Your task to perform on an android device: move an email to a new category in the gmail app Image 0: 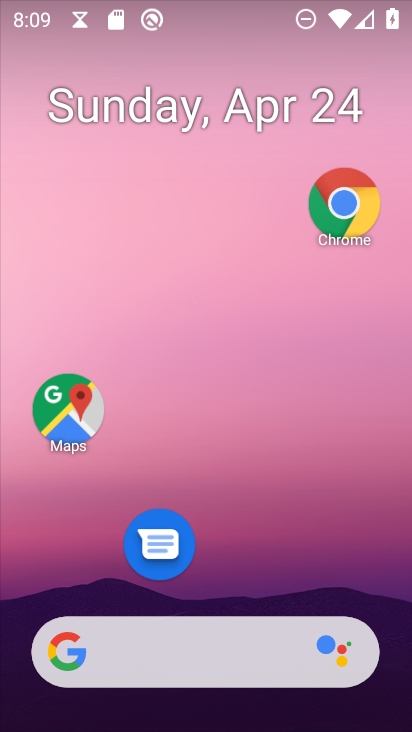
Step 0: press home button
Your task to perform on an android device: move an email to a new category in the gmail app Image 1: 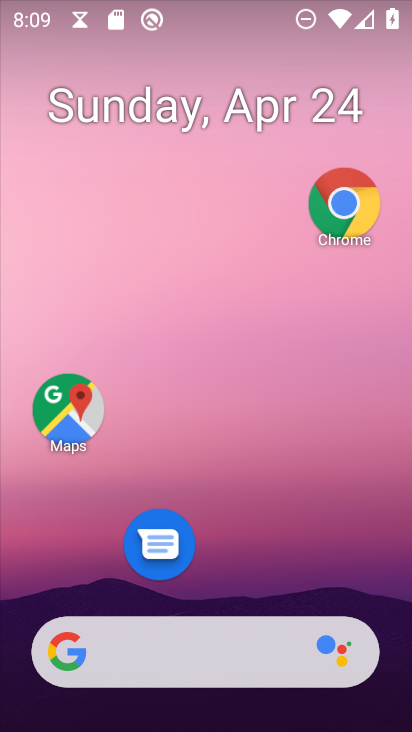
Step 1: drag from (167, 598) to (297, 199)
Your task to perform on an android device: move an email to a new category in the gmail app Image 2: 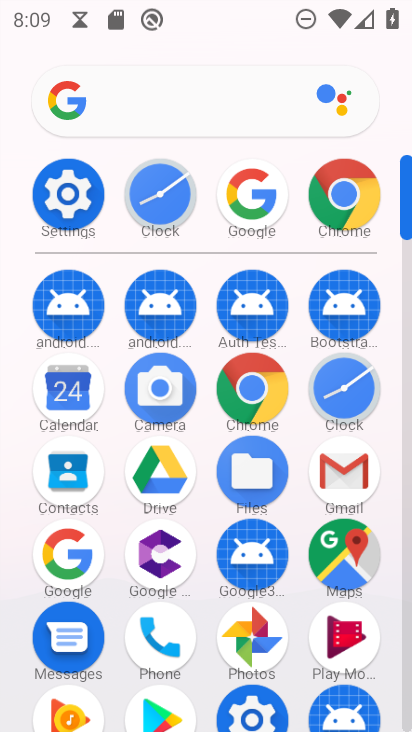
Step 2: click (342, 469)
Your task to perform on an android device: move an email to a new category in the gmail app Image 3: 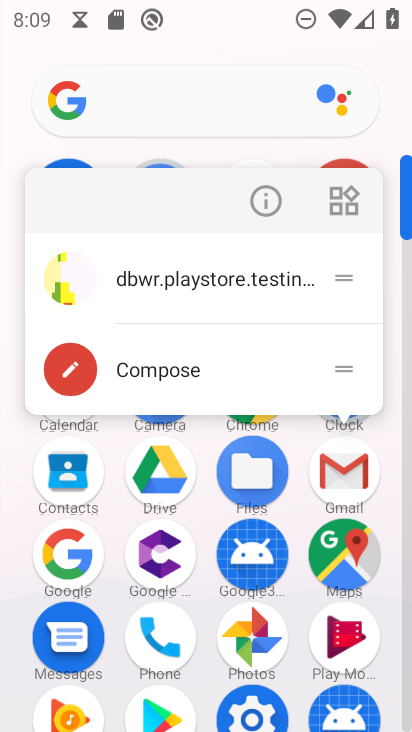
Step 3: click (342, 468)
Your task to perform on an android device: move an email to a new category in the gmail app Image 4: 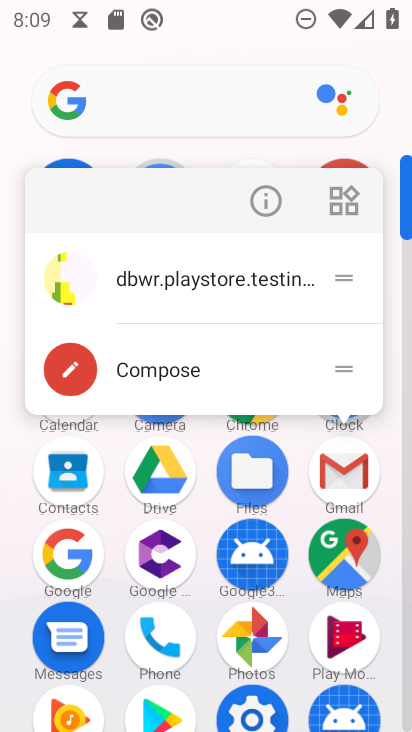
Step 4: click (340, 490)
Your task to perform on an android device: move an email to a new category in the gmail app Image 5: 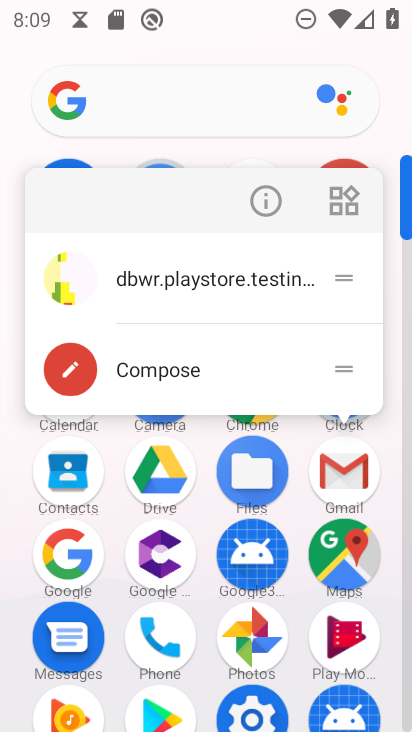
Step 5: click (340, 485)
Your task to perform on an android device: move an email to a new category in the gmail app Image 6: 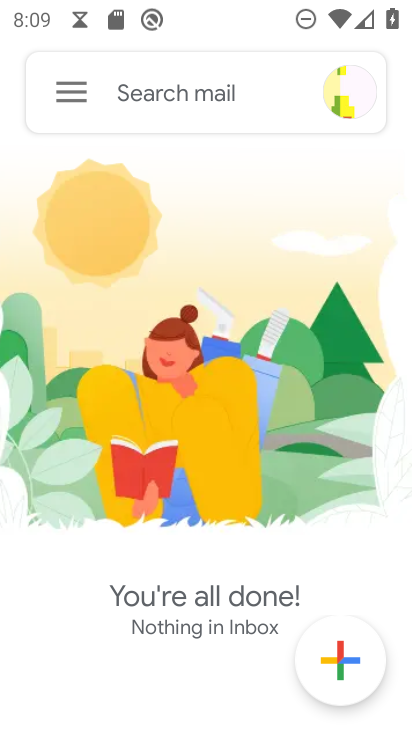
Step 6: click (59, 105)
Your task to perform on an android device: move an email to a new category in the gmail app Image 7: 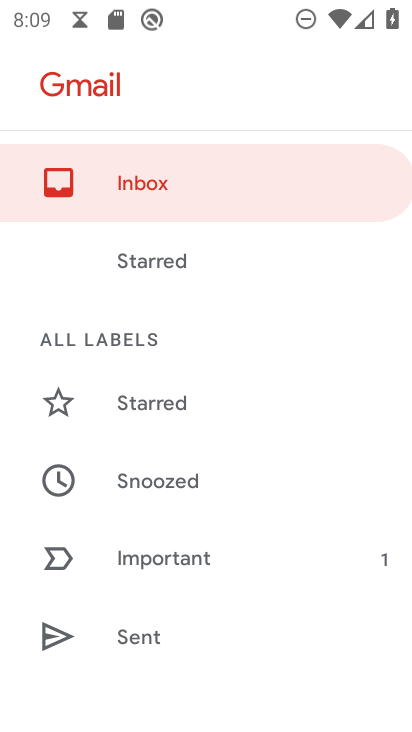
Step 7: drag from (201, 618) to (296, 208)
Your task to perform on an android device: move an email to a new category in the gmail app Image 8: 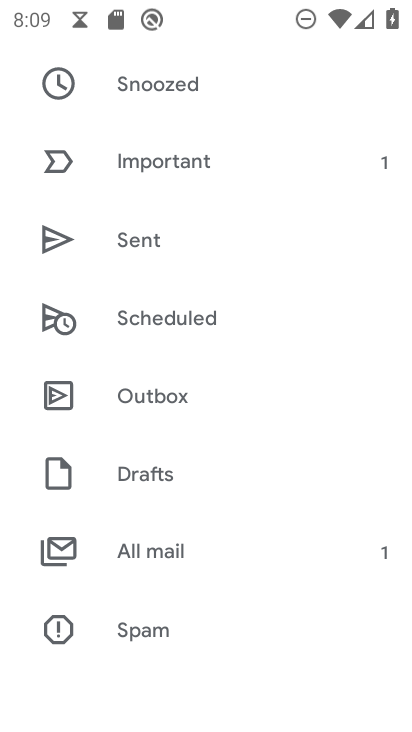
Step 8: click (168, 561)
Your task to perform on an android device: move an email to a new category in the gmail app Image 9: 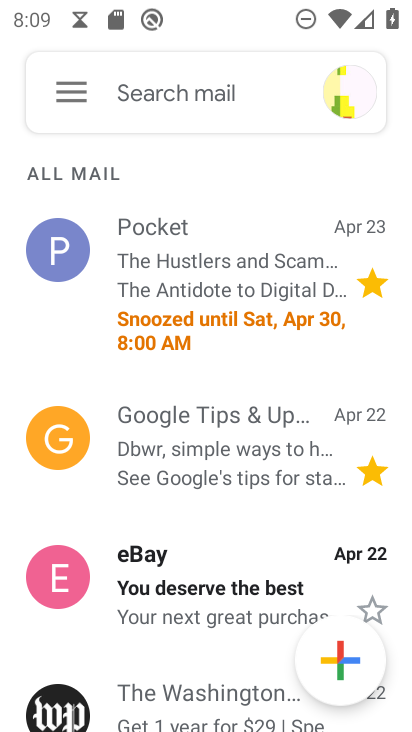
Step 9: click (68, 258)
Your task to perform on an android device: move an email to a new category in the gmail app Image 10: 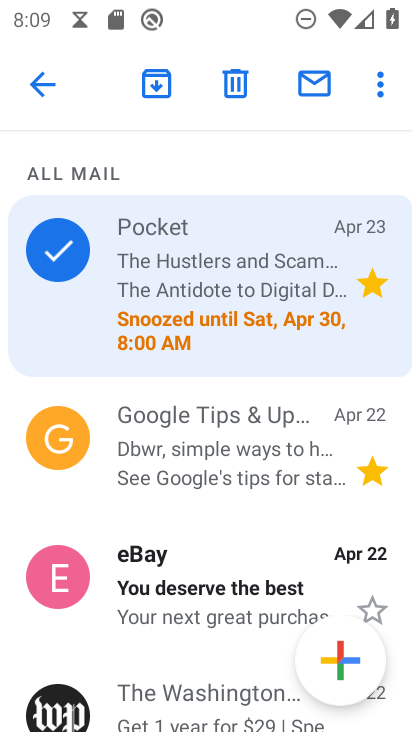
Step 10: click (378, 90)
Your task to perform on an android device: move an email to a new category in the gmail app Image 11: 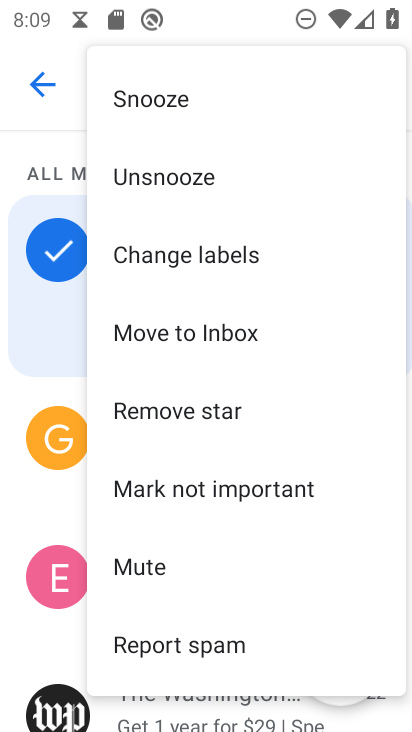
Step 11: click (228, 333)
Your task to perform on an android device: move an email to a new category in the gmail app Image 12: 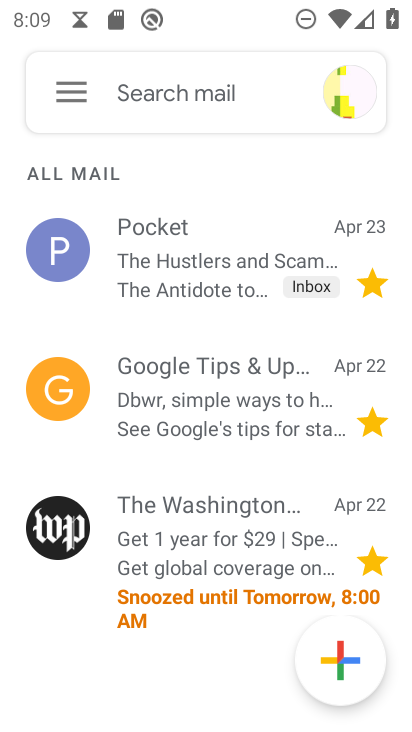
Step 12: task complete